Your task to perform on an android device: Go to Android settings Image 0: 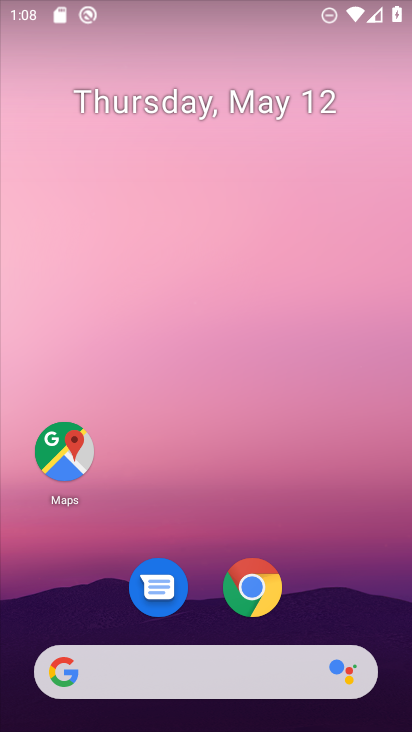
Step 0: drag from (321, 591) to (264, 91)
Your task to perform on an android device: Go to Android settings Image 1: 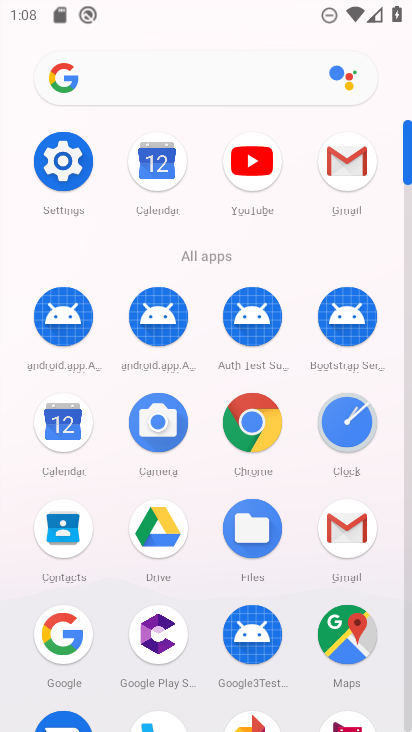
Step 1: click (64, 157)
Your task to perform on an android device: Go to Android settings Image 2: 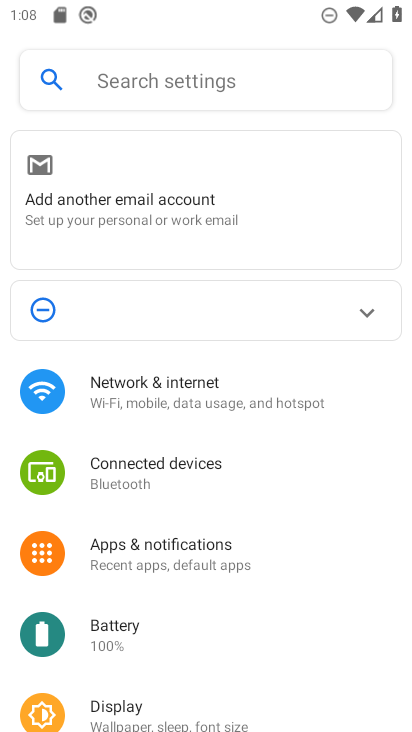
Step 2: task complete